Your task to perform on an android device: Clear all items from cart on walmart. Add usb-c to usb-a to the cart on walmart, then select checkout. Image 0: 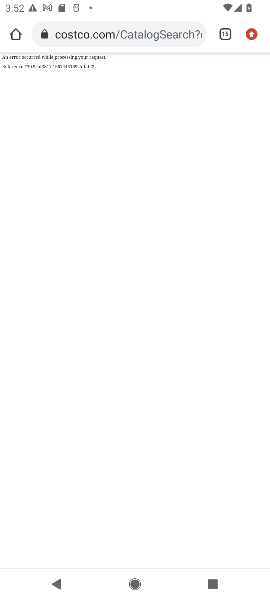
Step 0: task complete